Your task to perform on an android device: clear history in the chrome app Image 0: 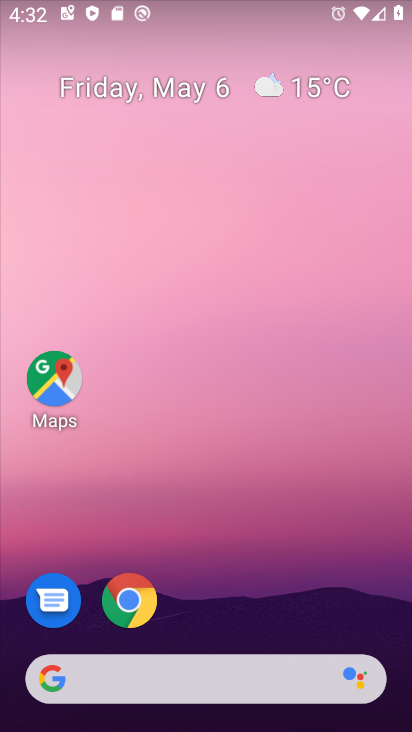
Step 0: click (129, 595)
Your task to perform on an android device: clear history in the chrome app Image 1: 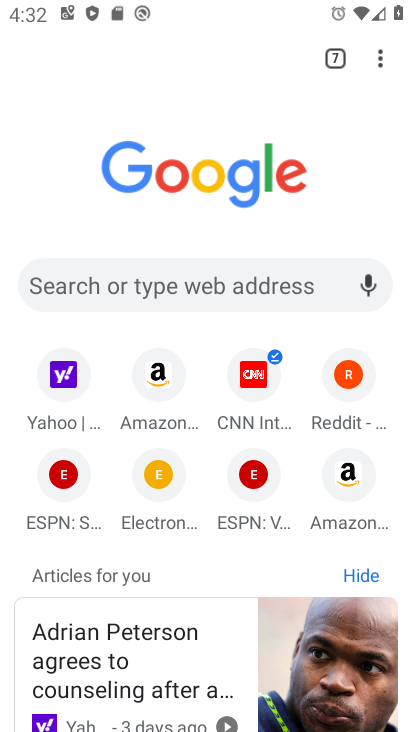
Step 1: click (382, 59)
Your task to perform on an android device: clear history in the chrome app Image 2: 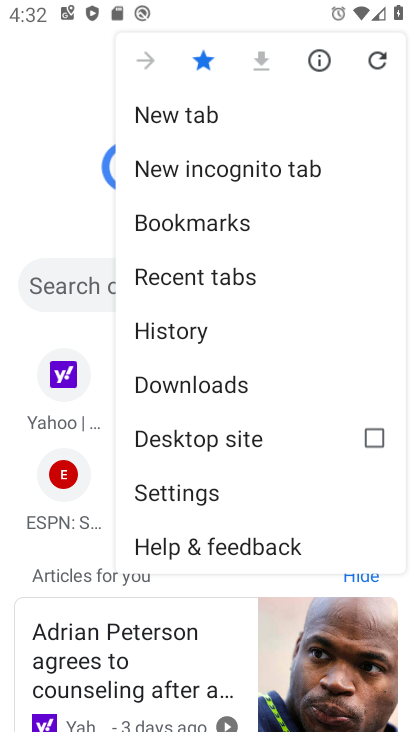
Step 2: click (210, 333)
Your task to perform on an android device: clear history in the chrome app Image 3: 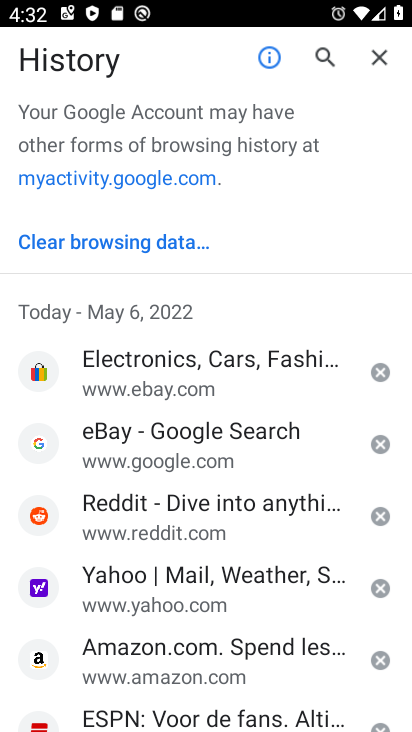
Step 3: click (166, 134)
Your task to perform on an android device: clear history in the chrome app Image 4: 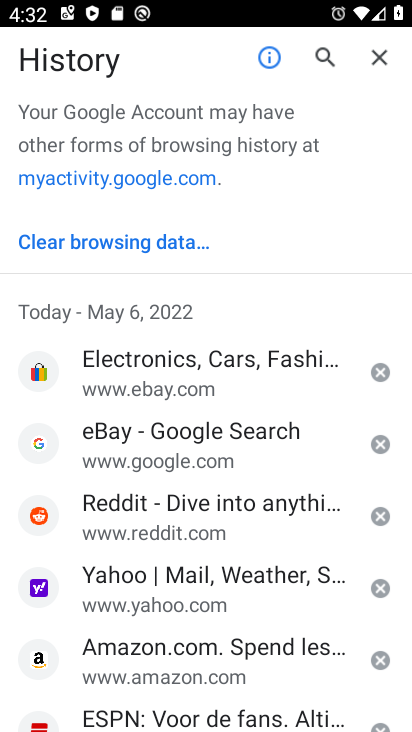
Step 4: click (172, 245)
Your task to perform on an android device: clear history in the chrome app Image 5: 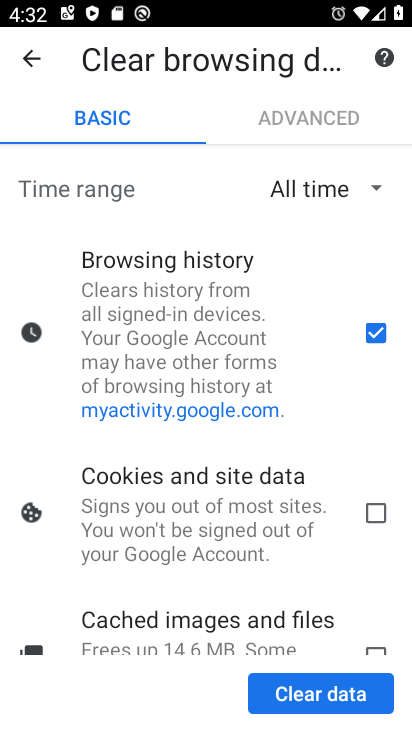
Step 5: click (344, 699)
Your task to perform on an android device: clear history in the chrome app Image 6: 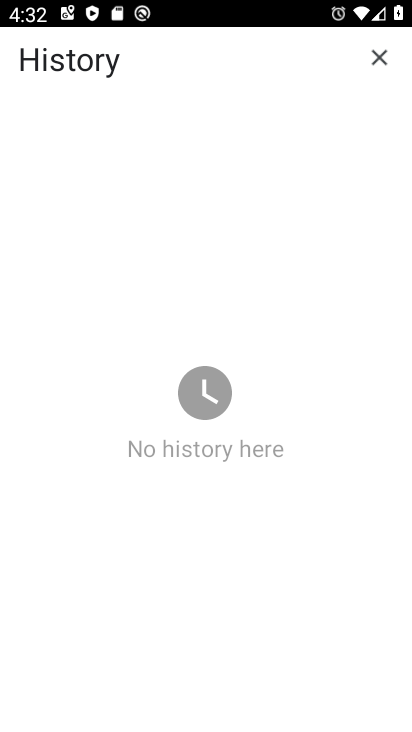
Step 6: task complete